Your task to perform on an android device: Play the last video I watched on Youtube Image 0: 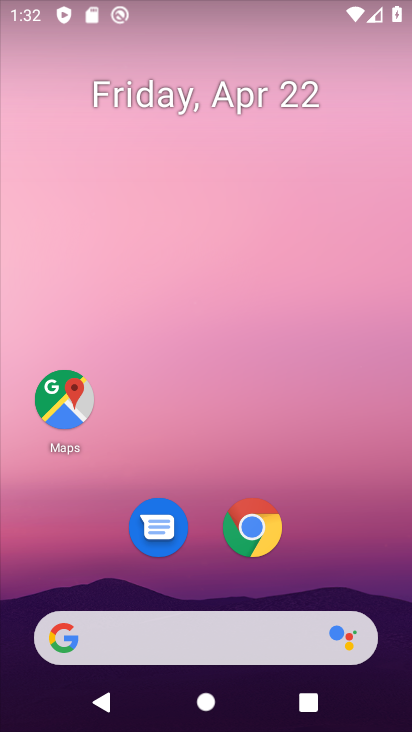
Step 0: drag from (320, 442) to (268, 37)
Your task to perform on an android device: Play the last video I watched on Youtube Image 1: 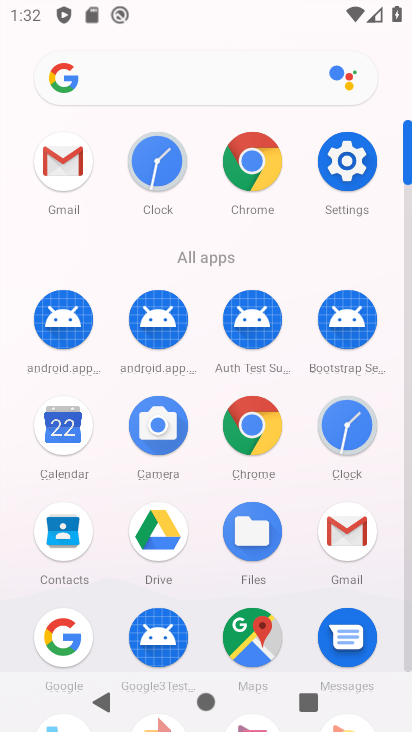
Step 1: click (390, 543)
Your task to perform on an android device: Play the last video I watched on Youtube Image 2: 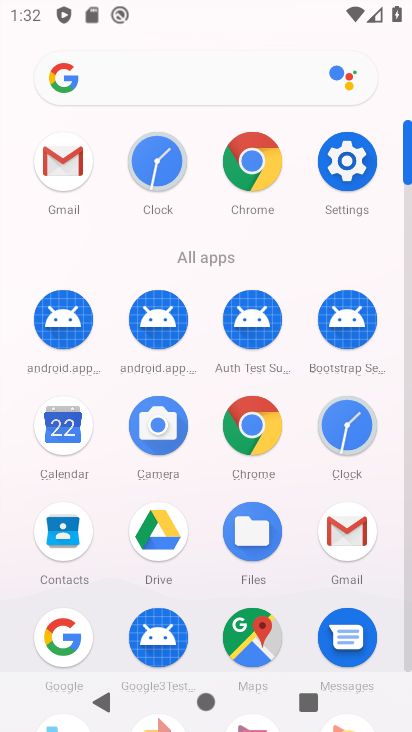
Step 2: drag from (394, 595) to (411, 517)
Your task to perform on an android device: Play the last video I watched on Youtube Image 3: 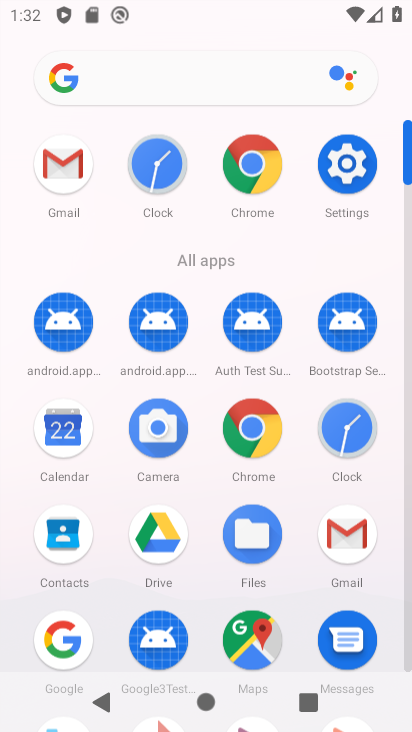
Step 3: drag from (382, 552) to (409, 92)
Your task to perform on an android device: Play the last video I watched on Youtube Image 4: 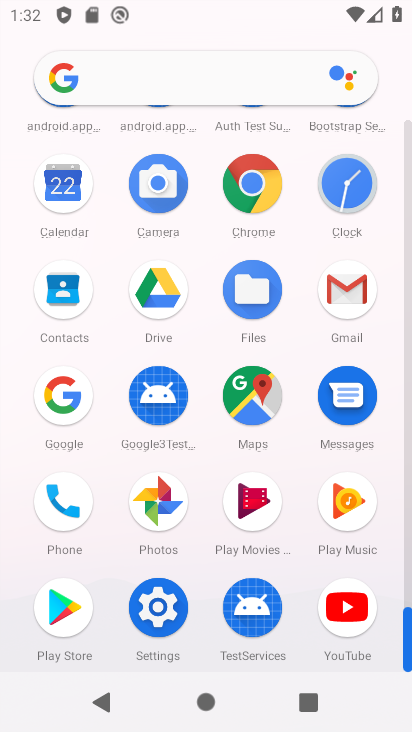
Step 4: click (338, 601)
Your task to perform on an android device: Play the last video I watched on Youtube Image 5: 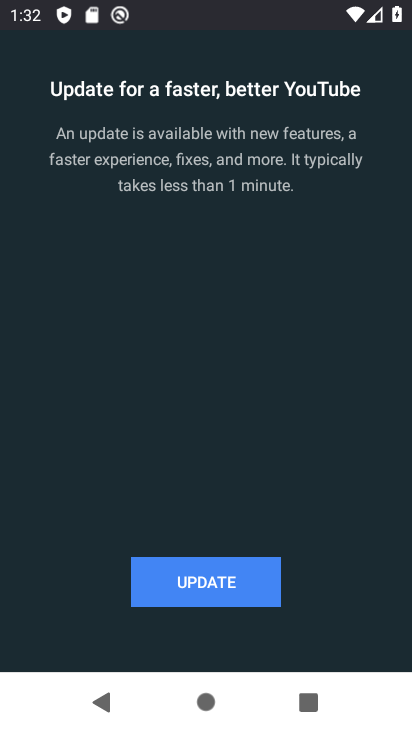
Step 5: click (212, 594)
Your task to perform on an android device: Play the last video I watched on Youtube Image 6: 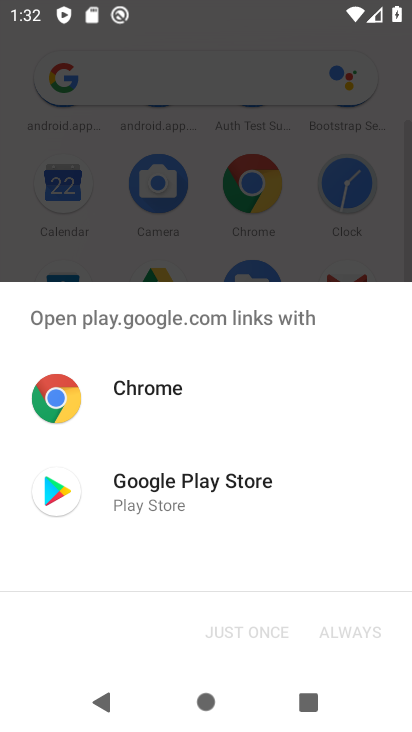
Step 6: click (89, 491)
Your task to perform on an android device: Play the last video I watched on Youtube Image 7: 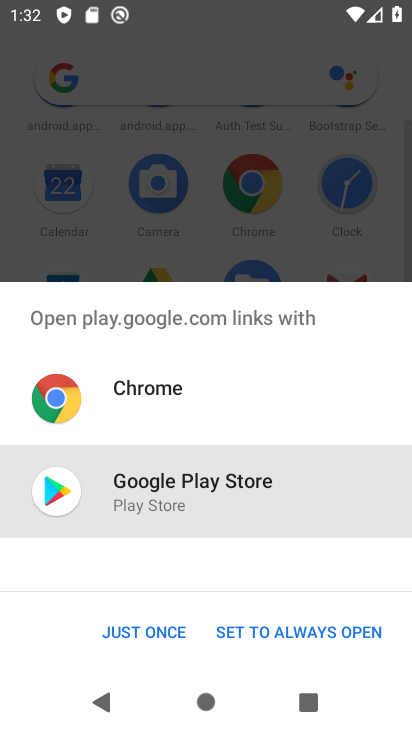
Step 7: click (155, 623)
Your task to perform on an android device: Play the last video I watched on Youtube Image 8: 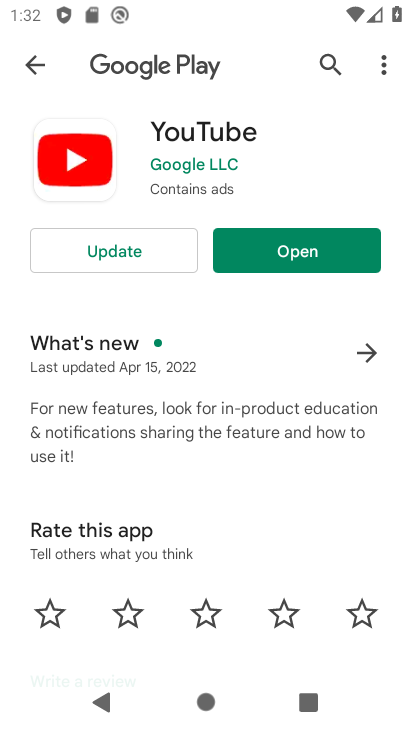
Step 8: click (117, 242)
Your task to perform on an android device: Play the last video I watched on Youtube Image 9: 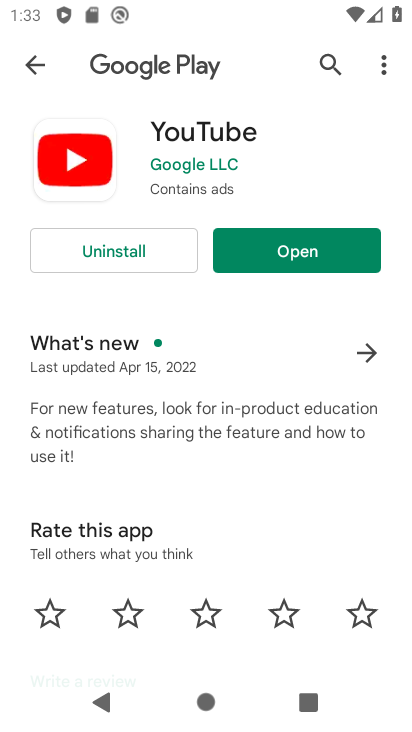
Step 9: click (263, 258)
Your task to perform on an android device: Play the last video I watched on Youtube Image 10: 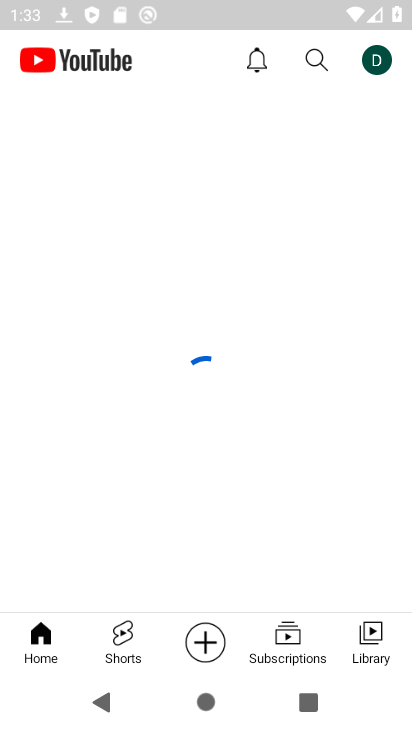
Step 10: click (383, 638)
Your task to perform on an android device: Play the last video I watched on Youtube Image 11: 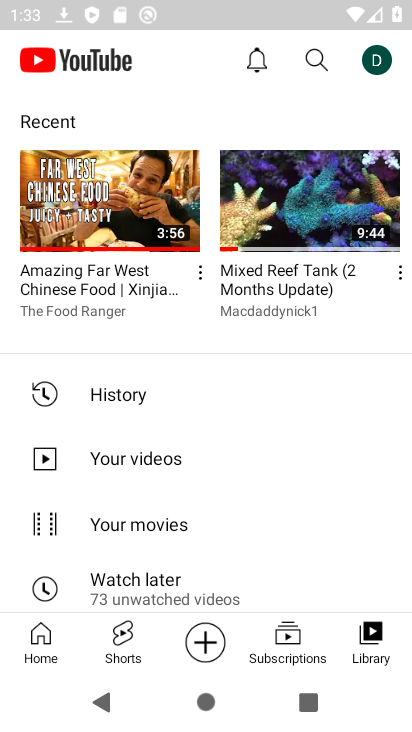
Step 11: click (103, 246)
Your task to perform on an android device: Play the last video I watched on Youtube Image 12: 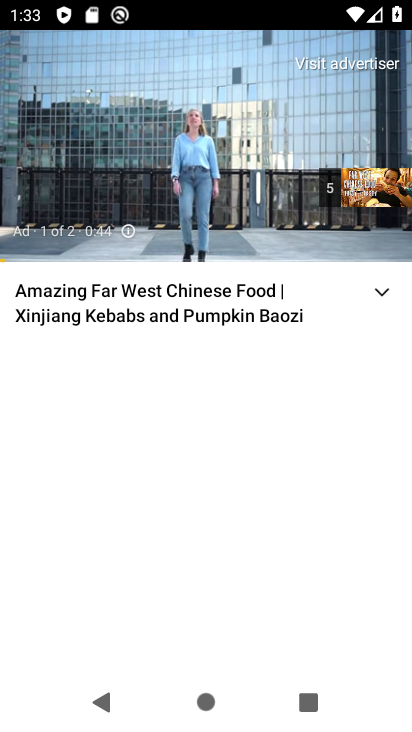
Step 12: task complete